Your task to perform on an android device: Search for the new Apple Watch on Best Buy Image 0: 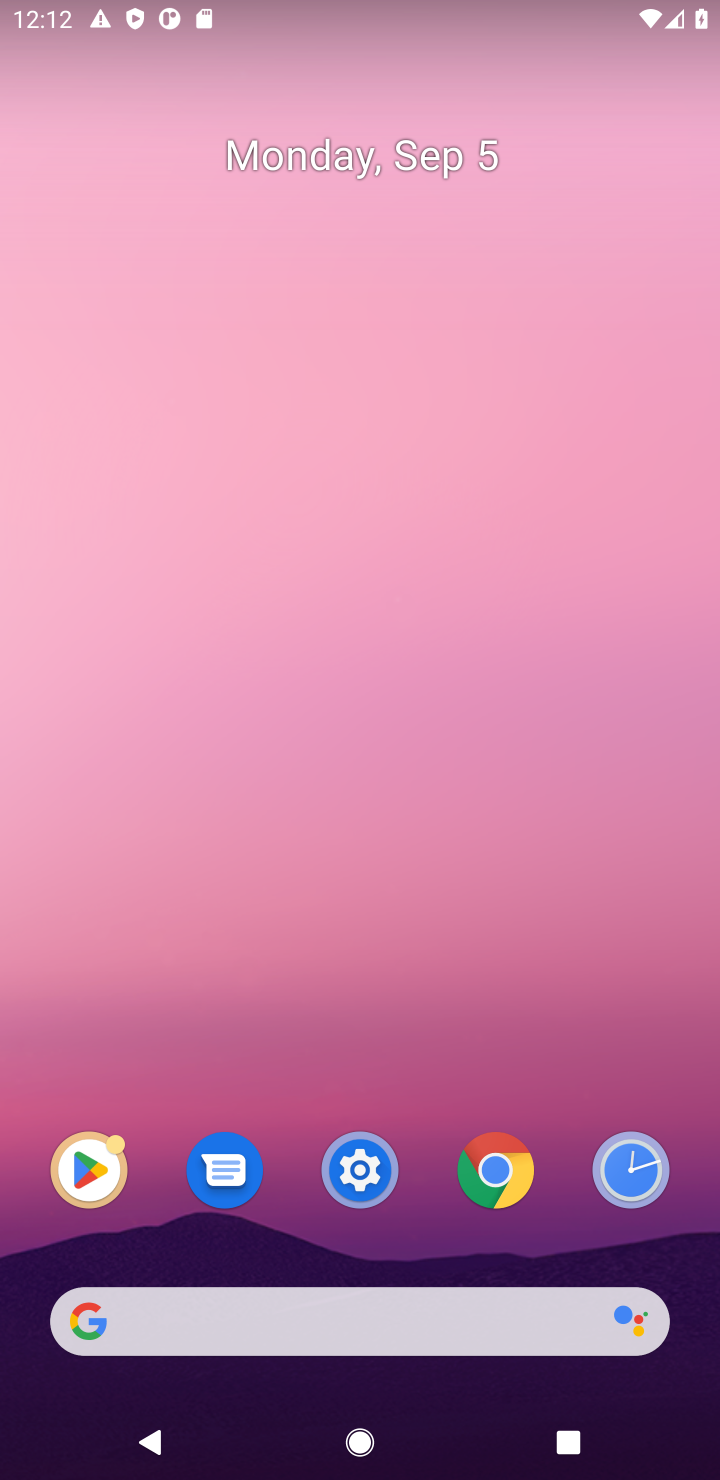
Step 0: click (295, 1312)
Your task to perform on an android device: Search for the new Apple Watch on Best Buy Image 1: 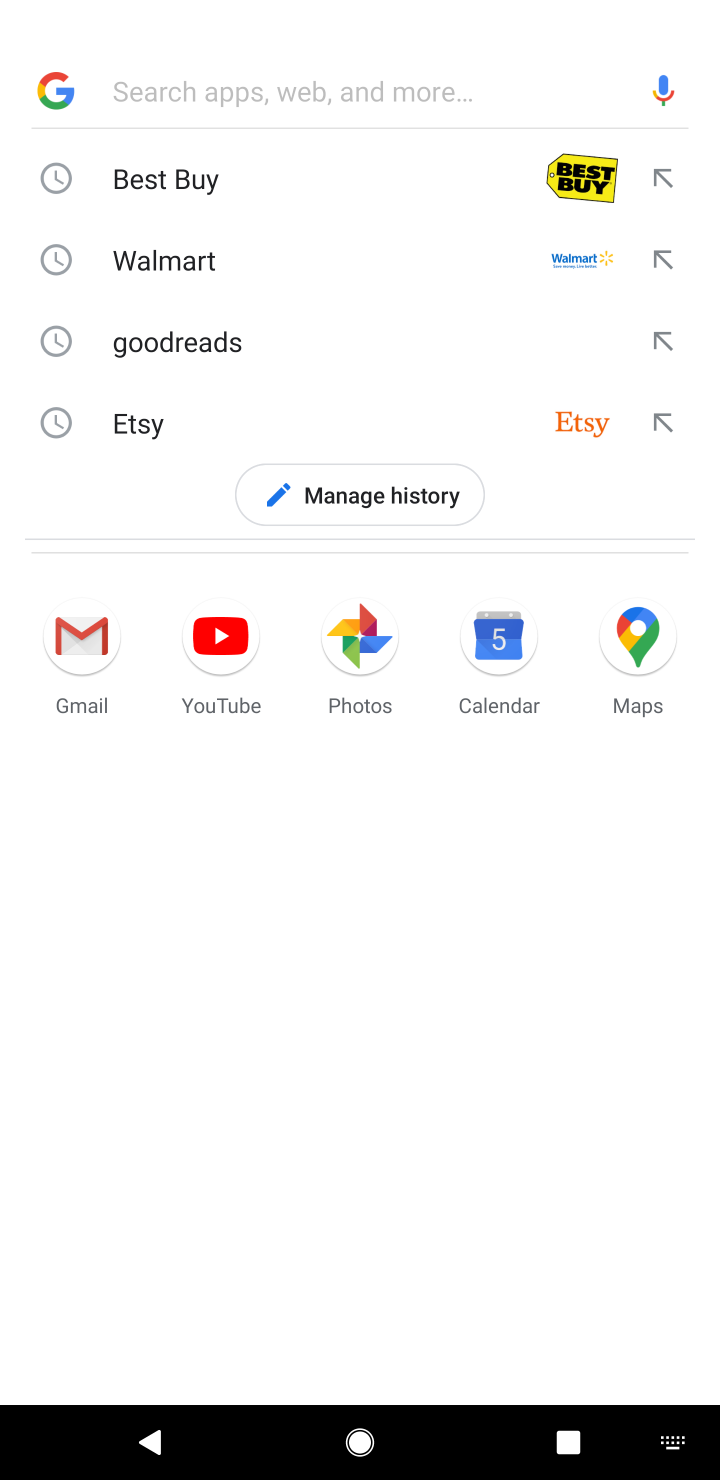
Step 1: click (226, 181)
Your task to perform on an android device: Search for the new Apple Watch on Best Buy Image 2: 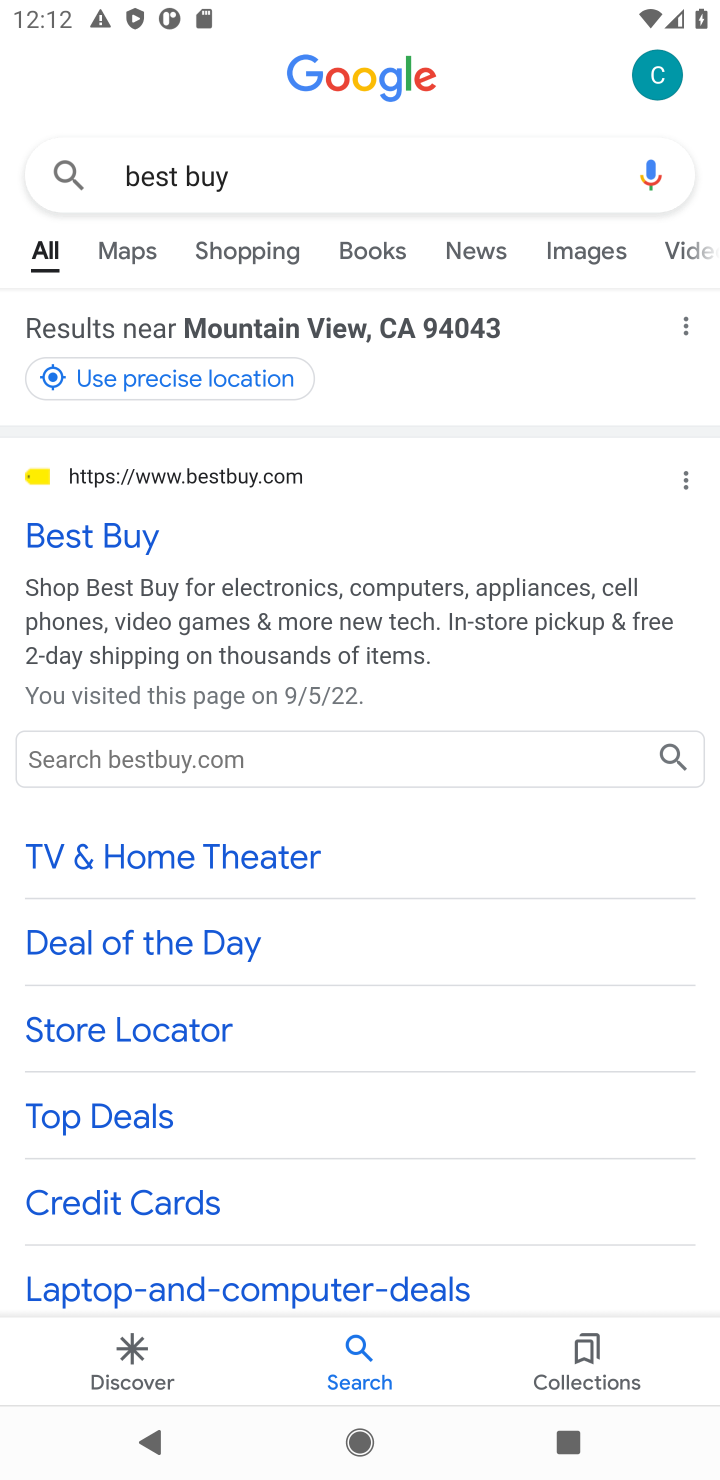
Step 2: click (85, 548)
Your task to perform on an android device: Search for the new Apple Watch on Best Buy Image 3: 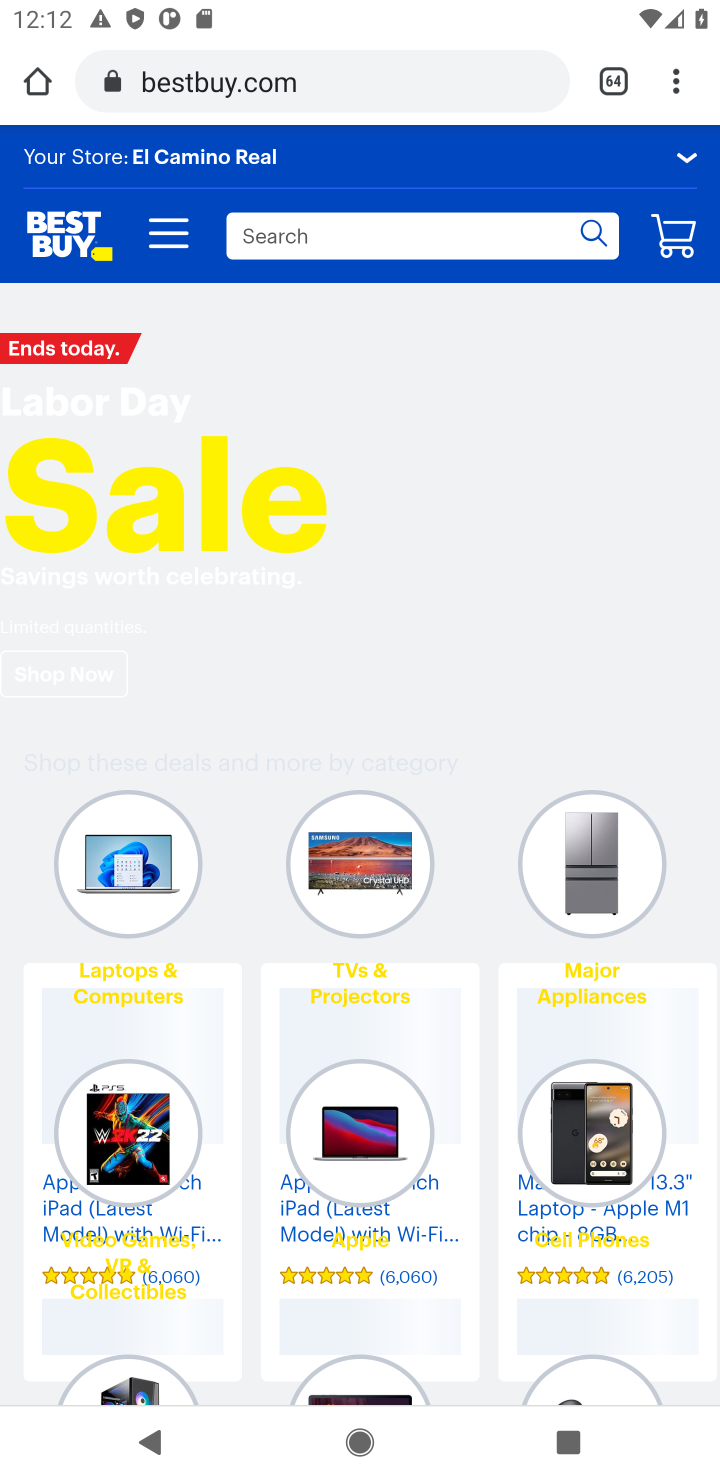
Step 3: click (267, 234)
Your task to perform on an android device: Search for the new Apple Watch on Best Buy Image 4: 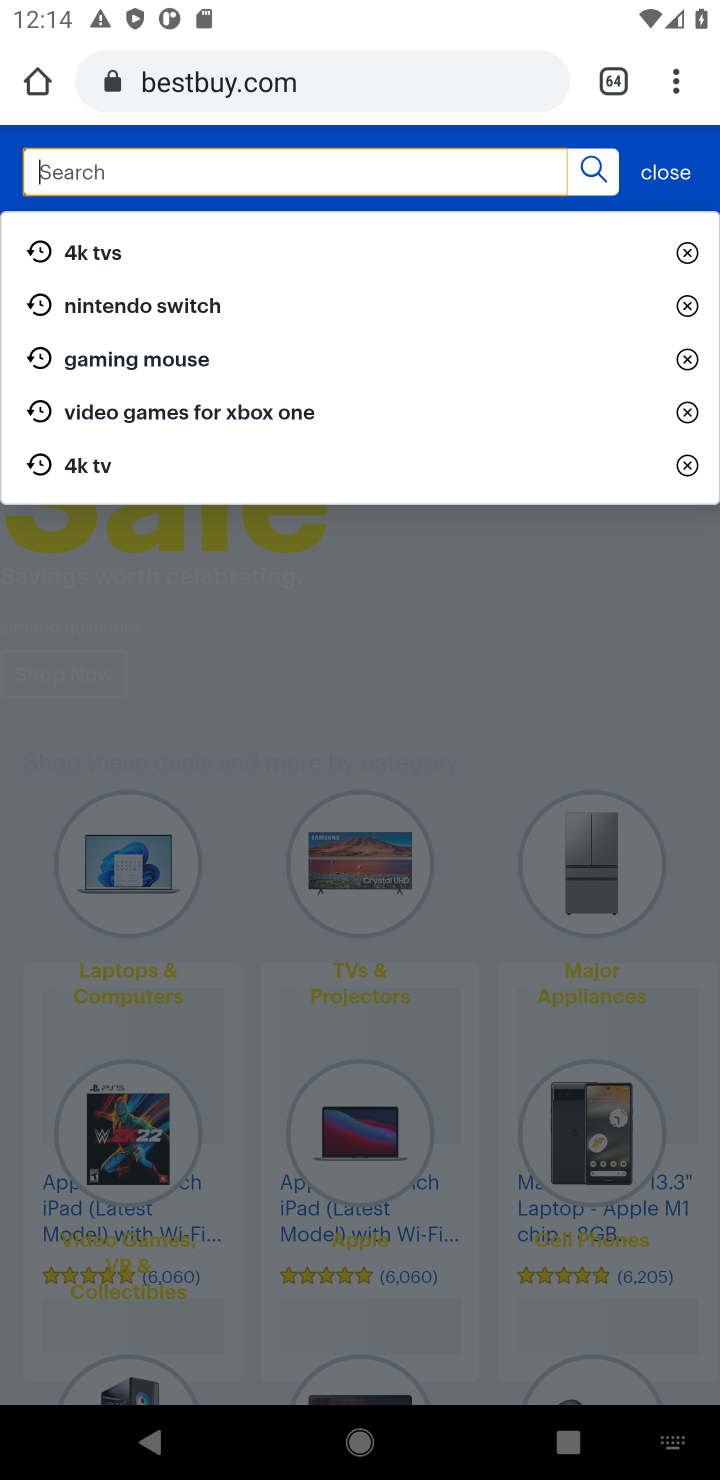
Step 4: type "Apple Watch"
Your task to perform on an android device: Search for the new Apple Watch on Best Buy Image 5: 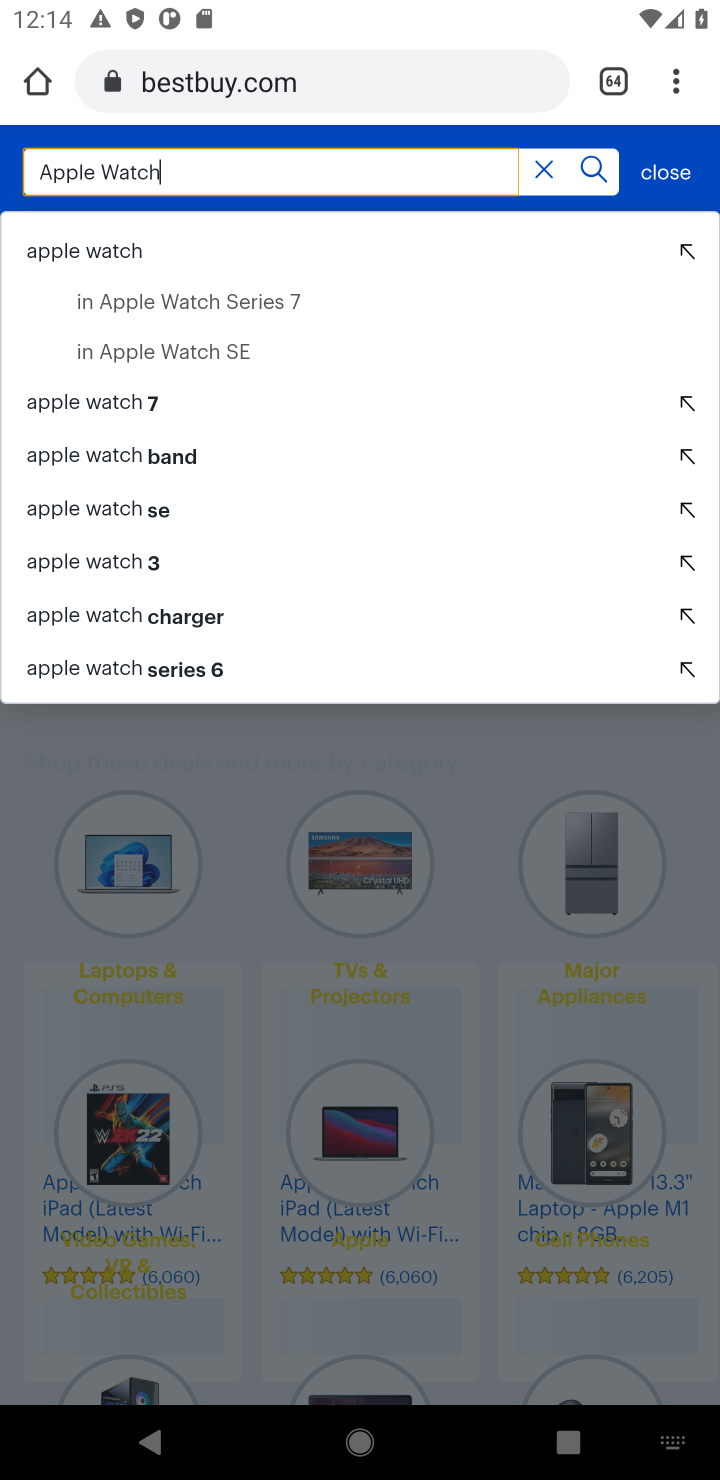
Step 5: click (158, 243)
Your task to perform on an android device: Search for the new Apple Watch on Best Buy Image 6: 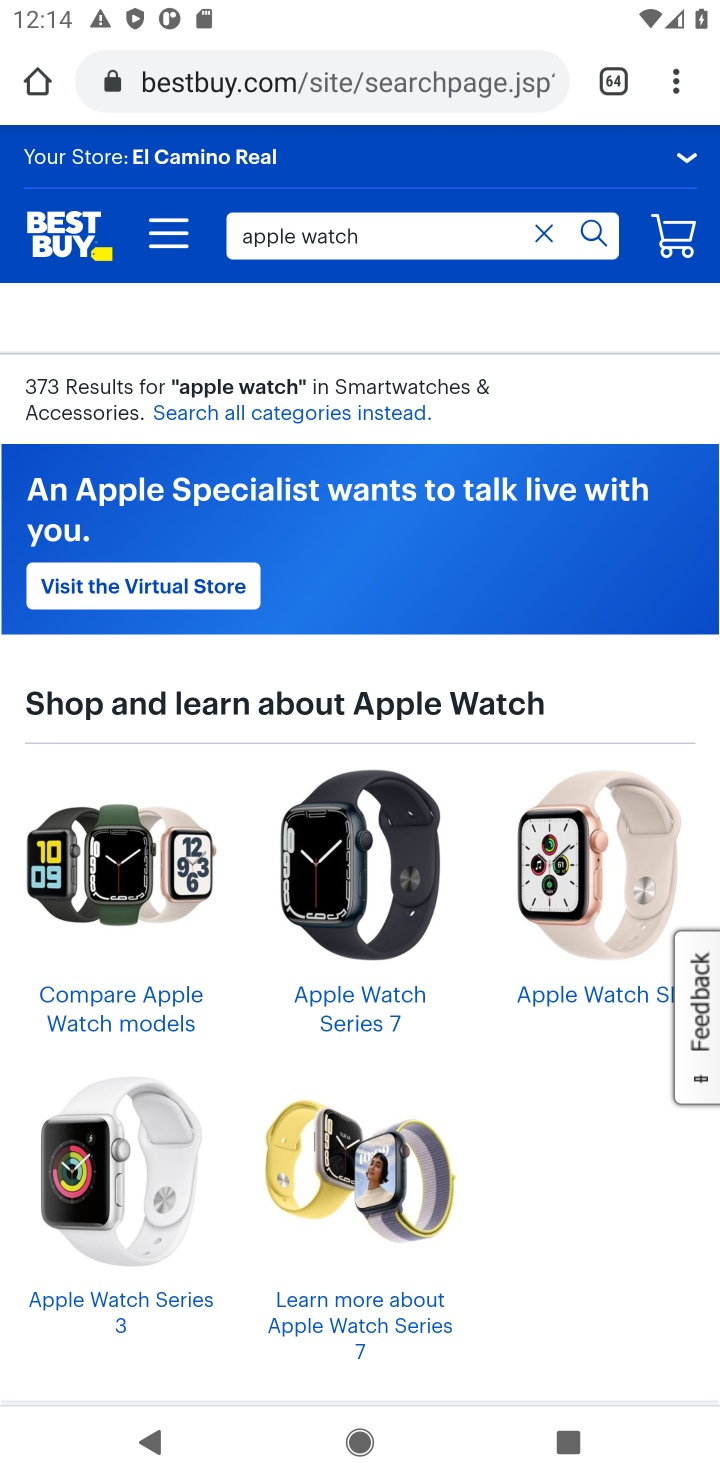
Step 6: task complete